Your task to perform on an android device: Open battery settings Image 0: 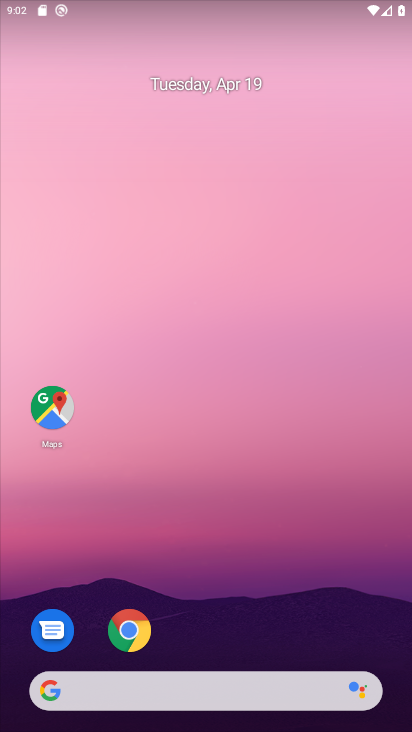
Step 0: drag from (284, 600) to (269, 149)
Your task to perform on an android device: Open battery settings Image 1: 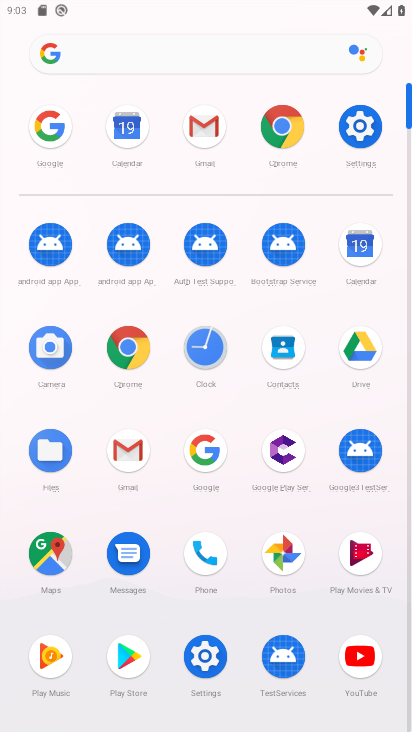
Step 1: click (365, 135)
Your task to perform on an android device: Open battery settings Image 2: 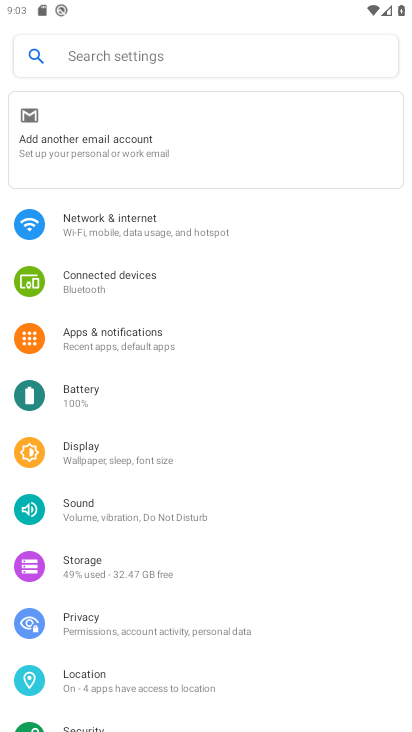
Step 2: click (157, 402)
Your task to perform on an android device: Open battery settings Image 3: 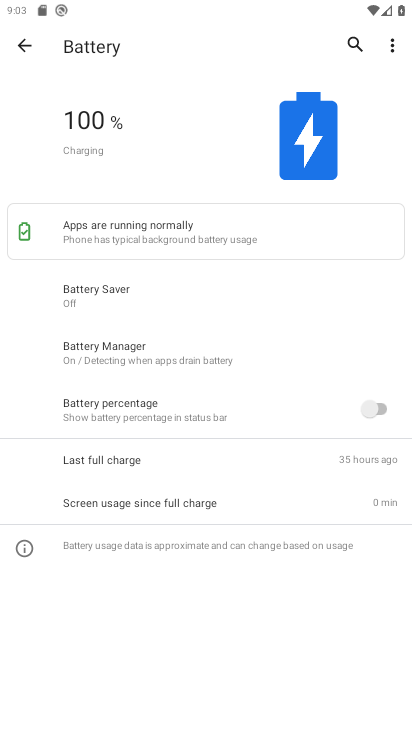
Step 3: task complete